Your task to perform on an android device: When is my next meeting? Image 0: 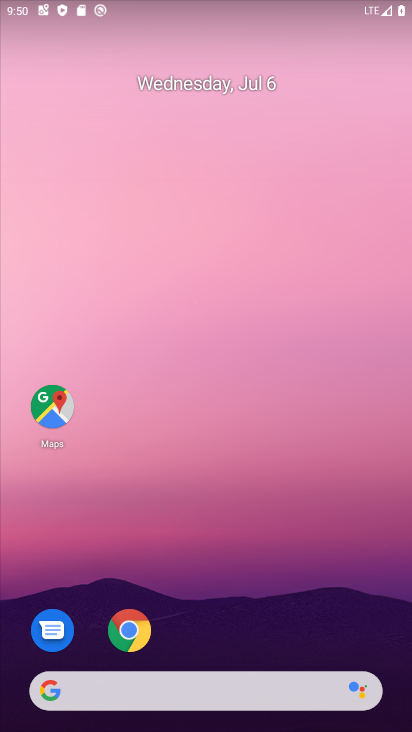
Step 0: drag from (375, 624) to (335, 171)
Your task to perform on an android device: When is my next meeting? Image 1: 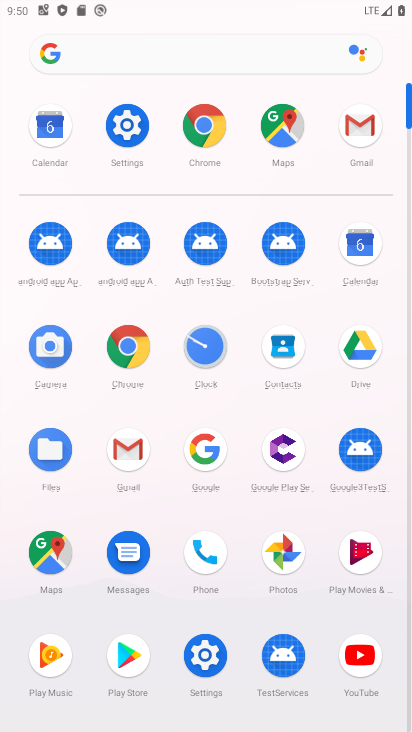
Step 1: click (359, 244)
Your task to perform on an android device: When is my next meeting? Image 2: 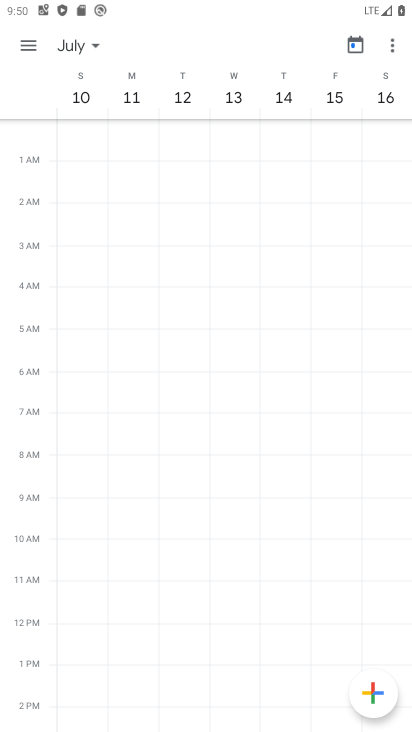
Step 2: click (28, 49)
Your task to perform on an android device: When is my next meeting? Image 3: 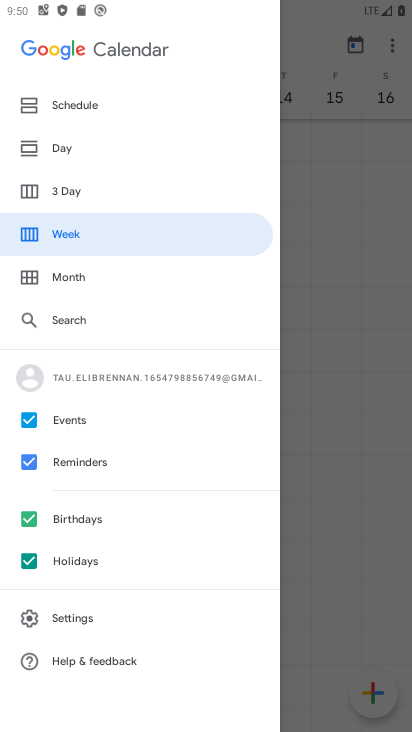
Step 3: click (71, 101)
Your task to perform on an android device: When is my next meeting? Image 4: 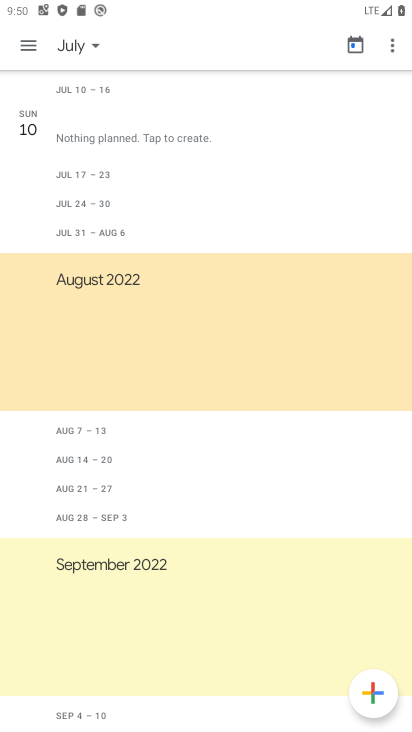
Step 4: task complete